Your task to perform on an android device: search for starred emails in the gmail app Image 0: 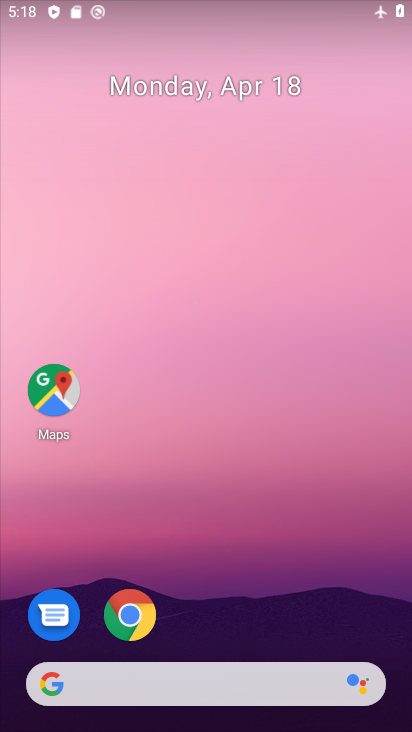
Step 0: drag from (240, 616) to (230, 11)
Your task to perform on an android device: search for starred emails in the gmail app Image 1: 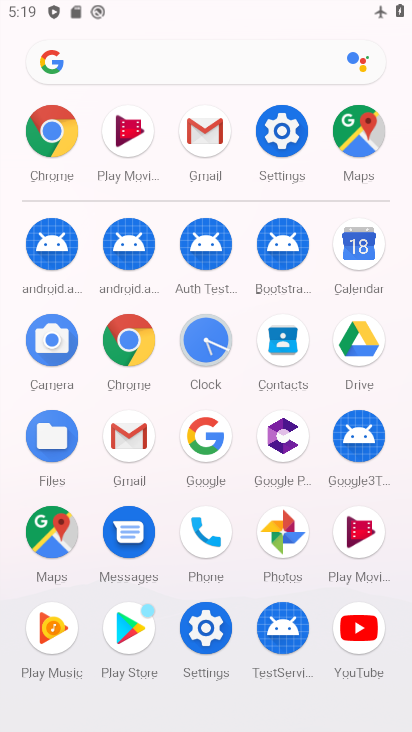
Step 1: click (209, 127)
Your task to perform on an android device: search for starred emails in the gmail app Image 2: 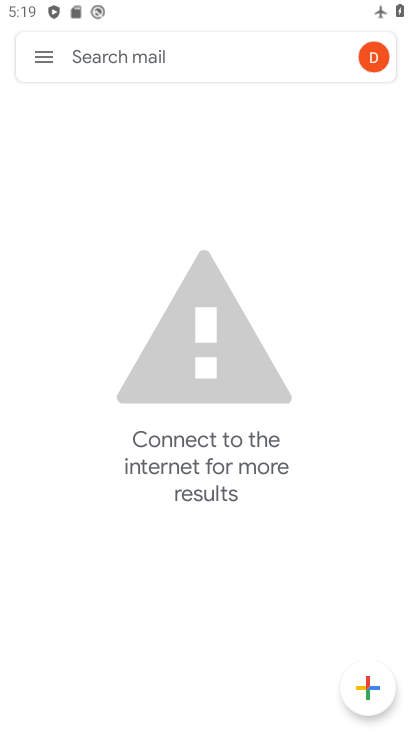
Step 2: click (49, 57)
Your task to perform on an android device: search for starred emails in the gmail app Image 3: 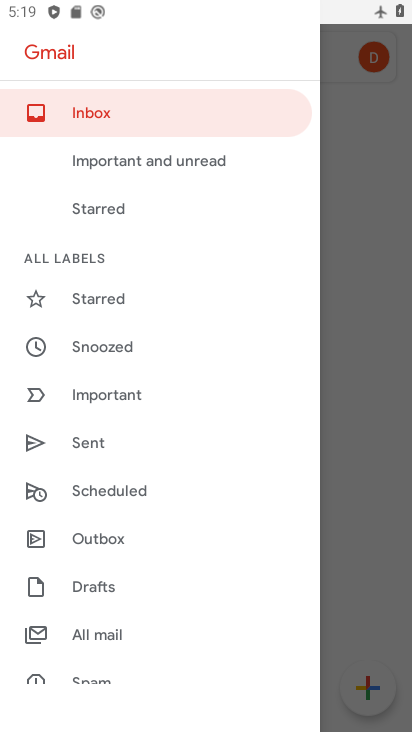
Step 3: click (47, 298)
Your task to perform on an android device: search for starred emails in the gmail app Image 4: 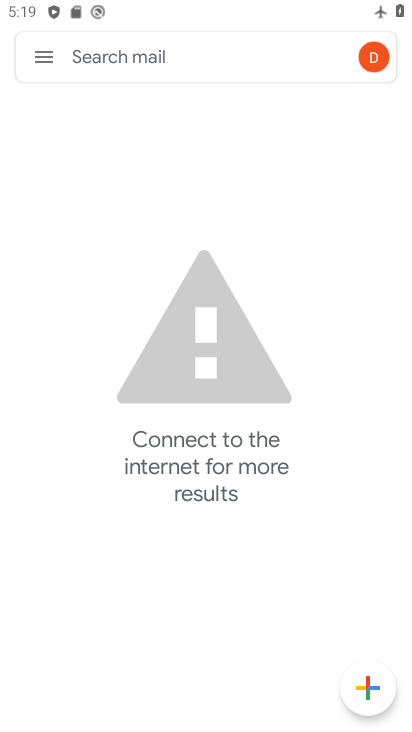
Step 4: task complete